Your task to perform on an android device: find snoozed emails in the gmail app Image 0: 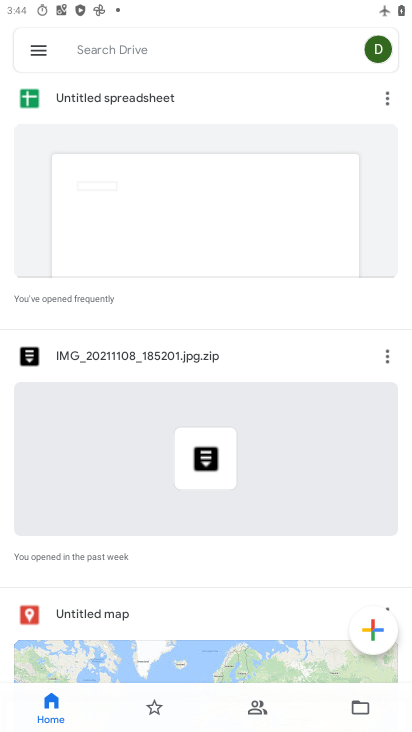
Step 0: press home button
Your task to perform on an android device: find snoozed emails in the gmail app Image 1: 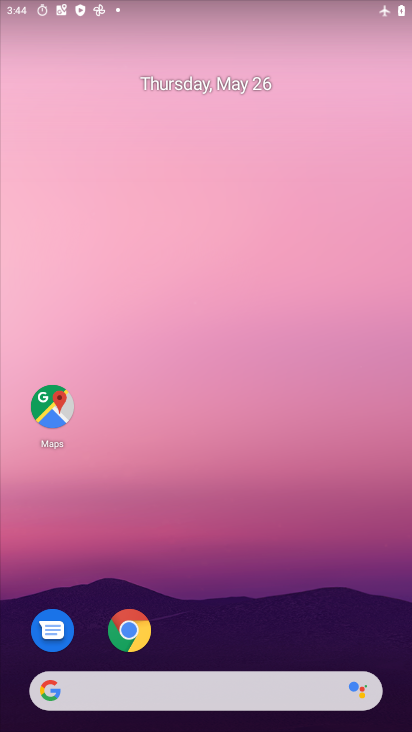
Step 1: drag from (236, 627) to (190, 188)
Your task to perform on an android device: find snoozed emails in the gmail app Image 2: 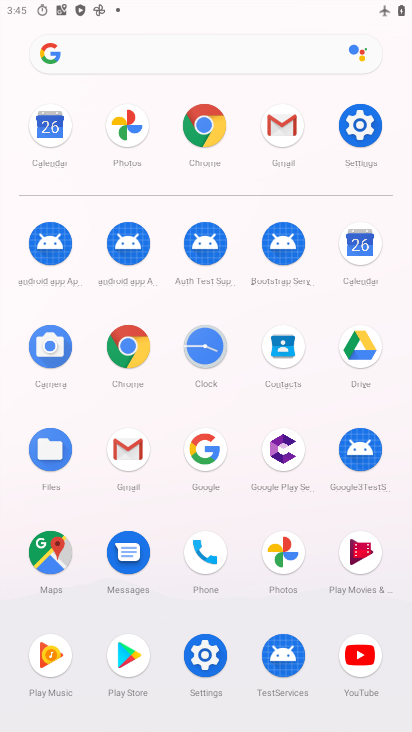
Step 2: click (275, 132)
Your task to perform on an android device: find snoozed emails in the gmail app Image 3: 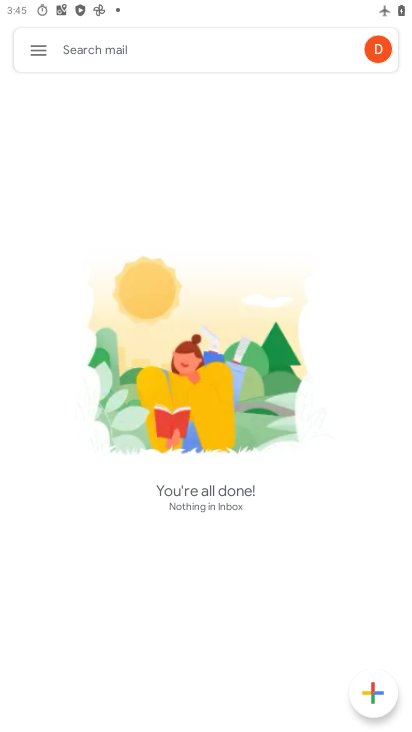
Step 3: click (31, 50)
Your task to perform on an android device: find snoozed emails in the gmail app Image 4: 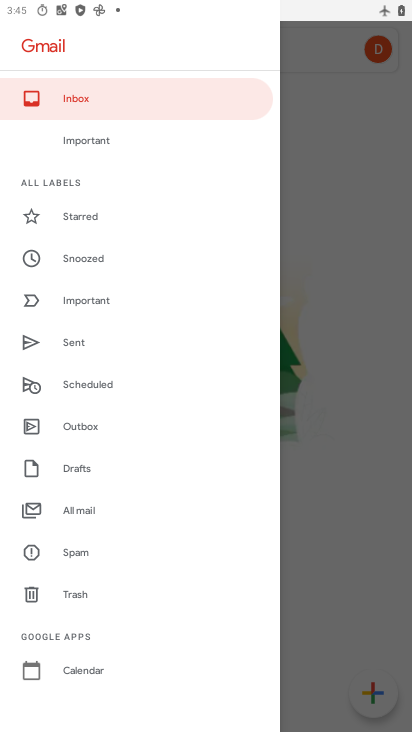
Step 4: click (85, 248)
Your task to perform on an android device: find snoozed emails in the gmail app Image 5: 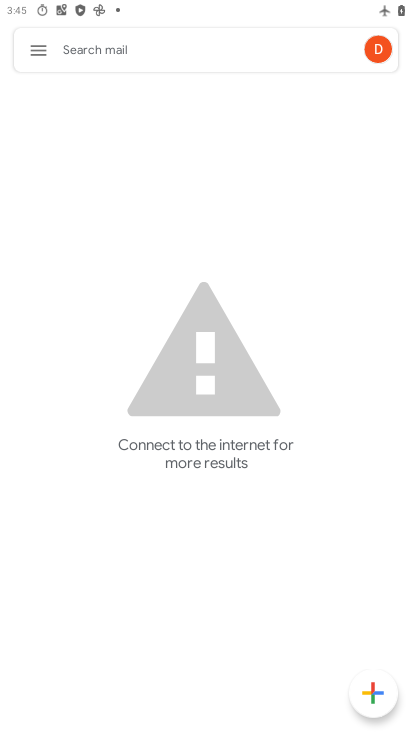
Step 5: click (36, 48)
Your task to perform on an android device: find snoozed emails in the gmail app Image 6: 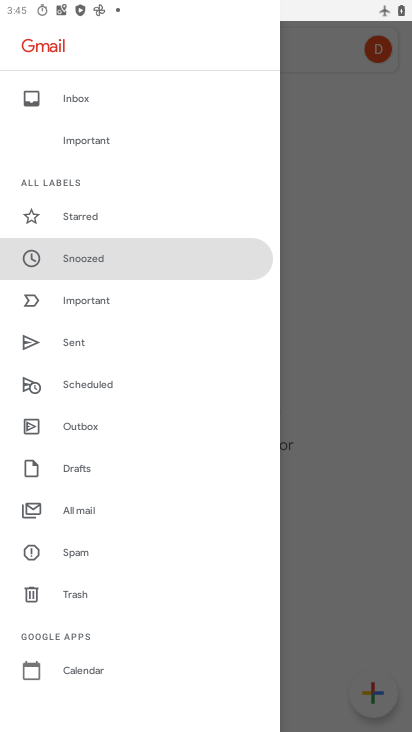
Step 6: task complete